Your task to perform on an android device: toggle show notifications on the lock screen Image 0: 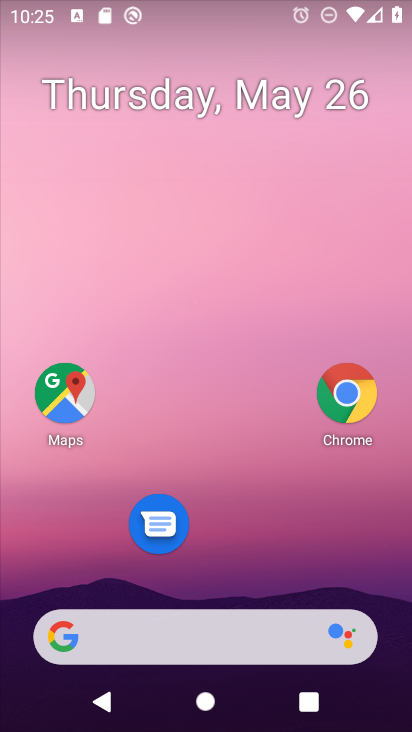
Step 0: drag from (228, 511) to (258, 8)
Your task to perform on an android device: toggle show notifications on the lock screen Image 1: 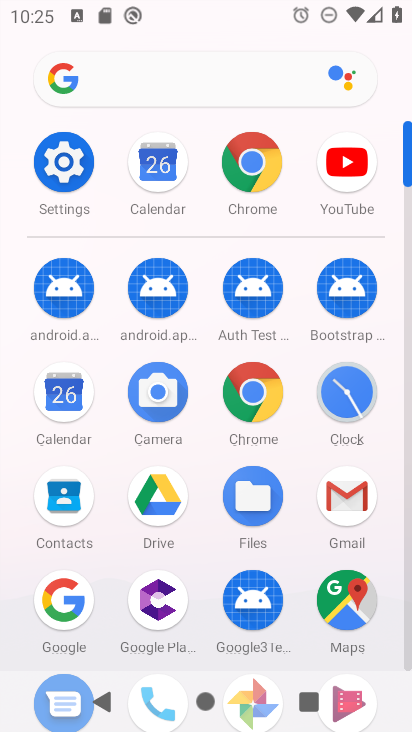
Step 1: click (79, 173)
Your task to perform on an android device: toggle show notifications on the lock screen Image 2: 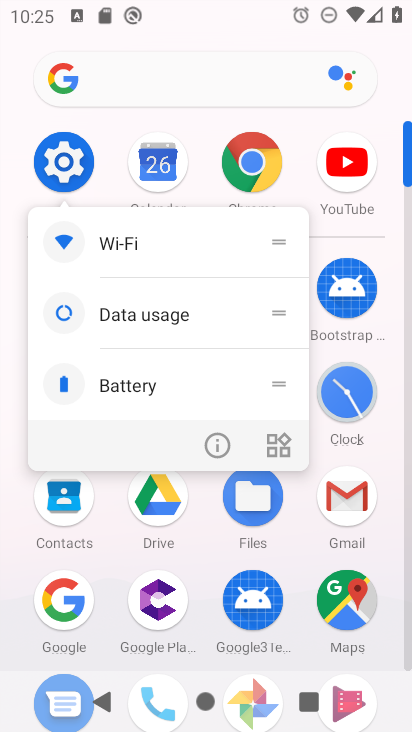
Step 2: click (76, 153)
Your task to perform on an android device: toggle show notifications on the lock screen Image 3: 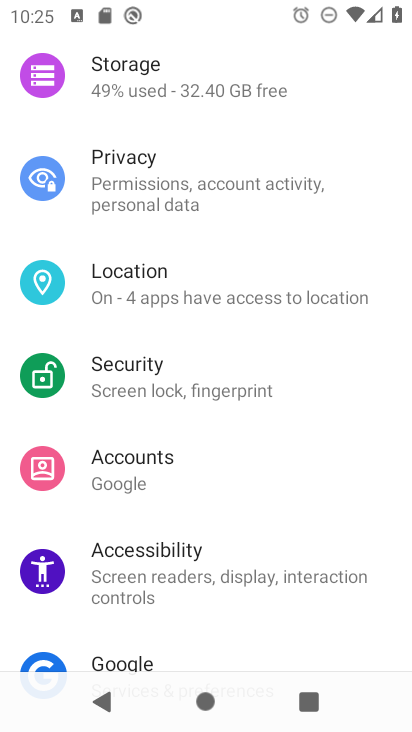
Step 3: drag from (197, 120) to (94, 599)
Your task to perform on an android device: toggle show notifications on the lock screen Image 4: 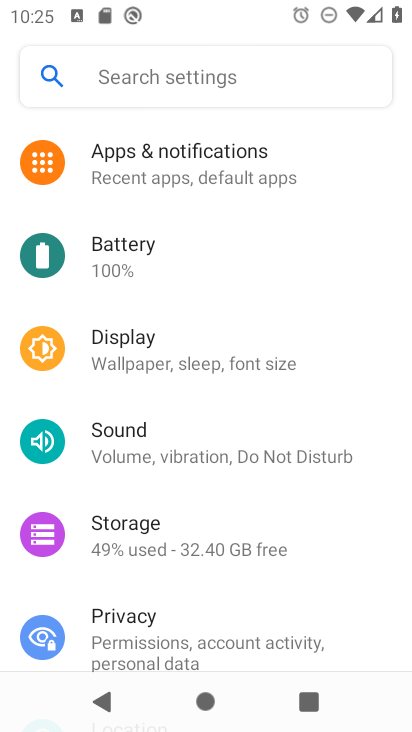
Step 4: click (260, 165)
Your task to perform on an android device: toggle show notifications on the lock screen Image 5: 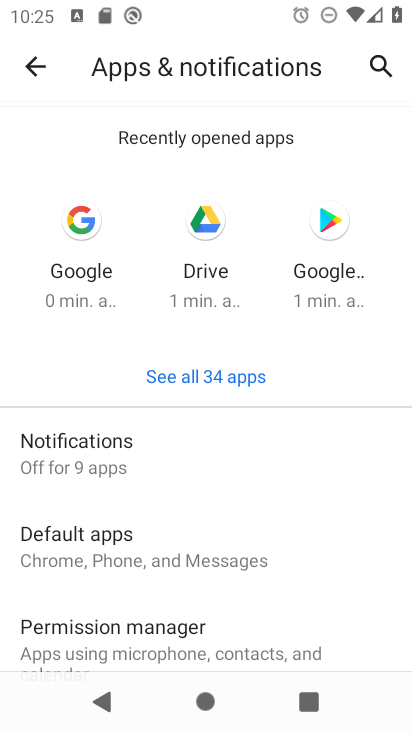
Step 5: click (201, 456)
Your task to perform on an android device: toggle show notifications on the lock screen Image 6: 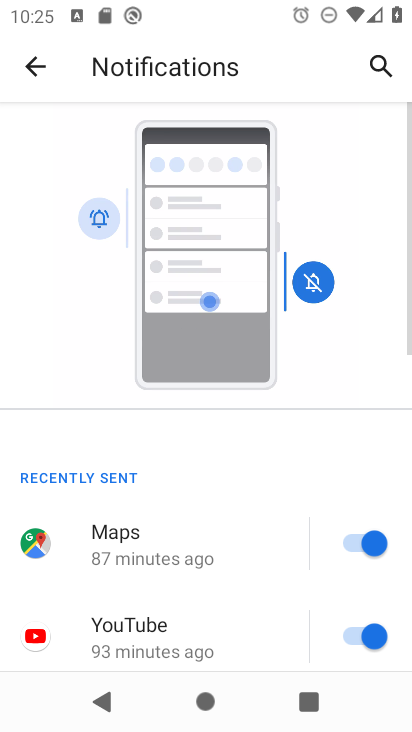
Step 6: drag from (241, 503) to (291, 35)
Your task to perform on an android device: toggle show notifications on the lock screen Image 7: 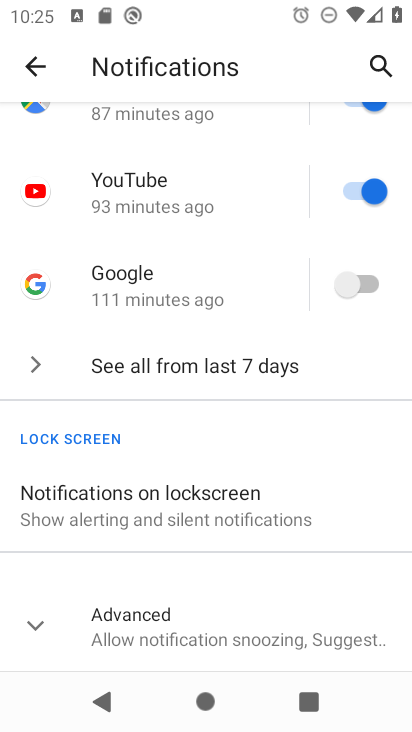
Step 7: click (196, 494)
Your task to perform on an android device: toggle show notifications on the lock screen Image 8: 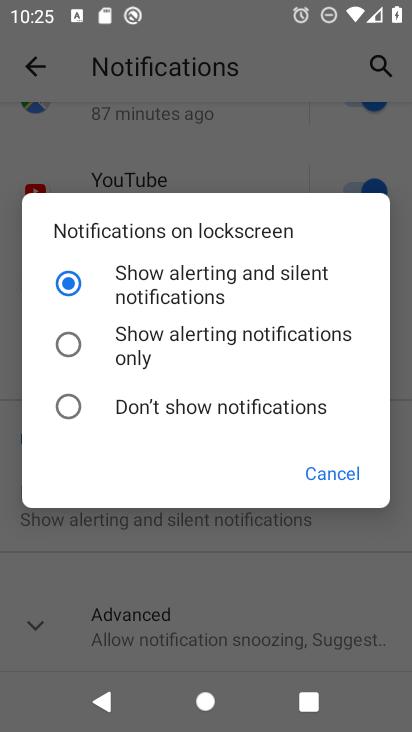
Step 8: click (65, 398)
Your task to perform on an android device: toggle show notifications on the lock screen Image 9: 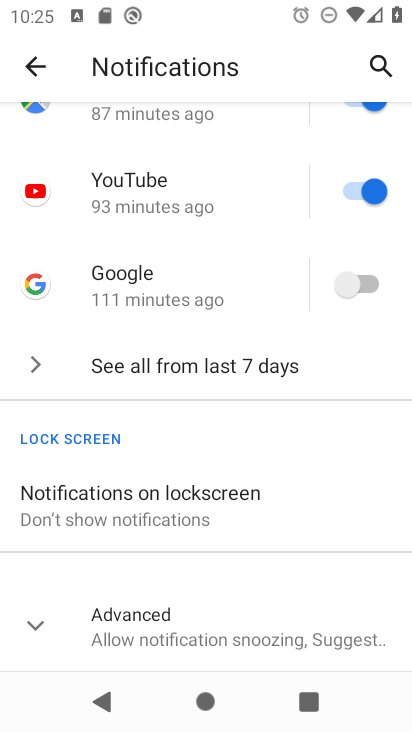
Step 9: task complete